Your task to perform on an android device: Open the phone app and click the voicemail tab. Image 0: 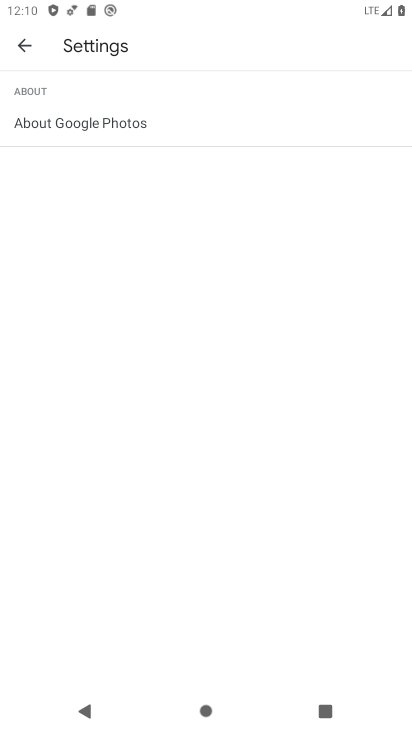
Step 0: press home button
Your task to perform on an android device: Open the phone app and click the voicemail tab. Image 1: 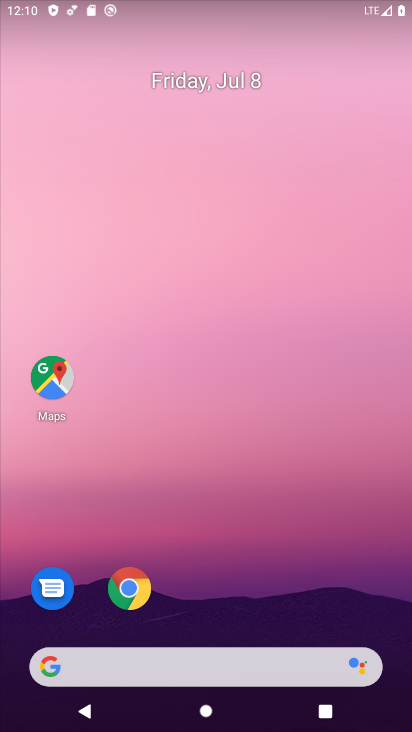
Step 1: drag from (225, 630) to (293, 87)
Your task to perform on an android device: Open the phone app and click the voicemail tab. Image 2: 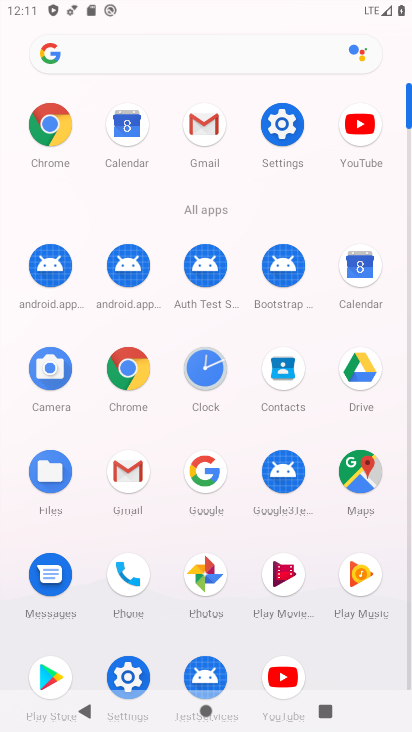
Step 2: click (120, 556)
Your task to perform on an android device: Open the phone app and click the voicemail tab. Image 3: 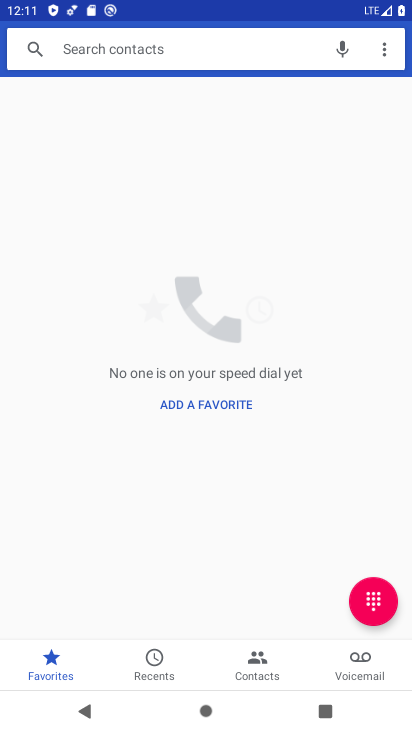
Step 3: click (356, 659)
Your task to perform on an android device: Open the phone app and click the voicemail tab. Image 4: 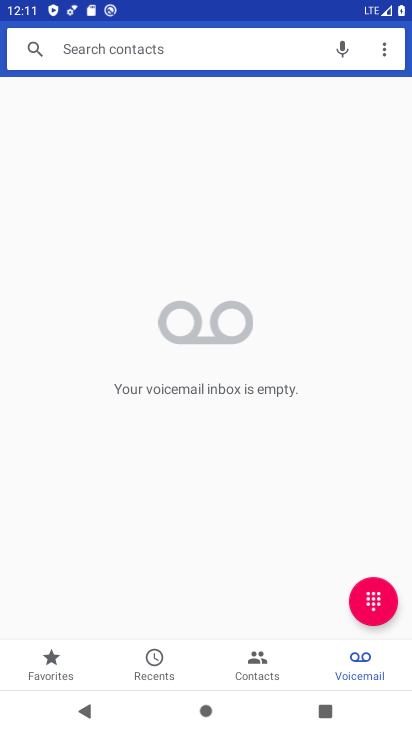
Step 4: task complete